Your task to perform on an android device: Open battery settings Image 0: 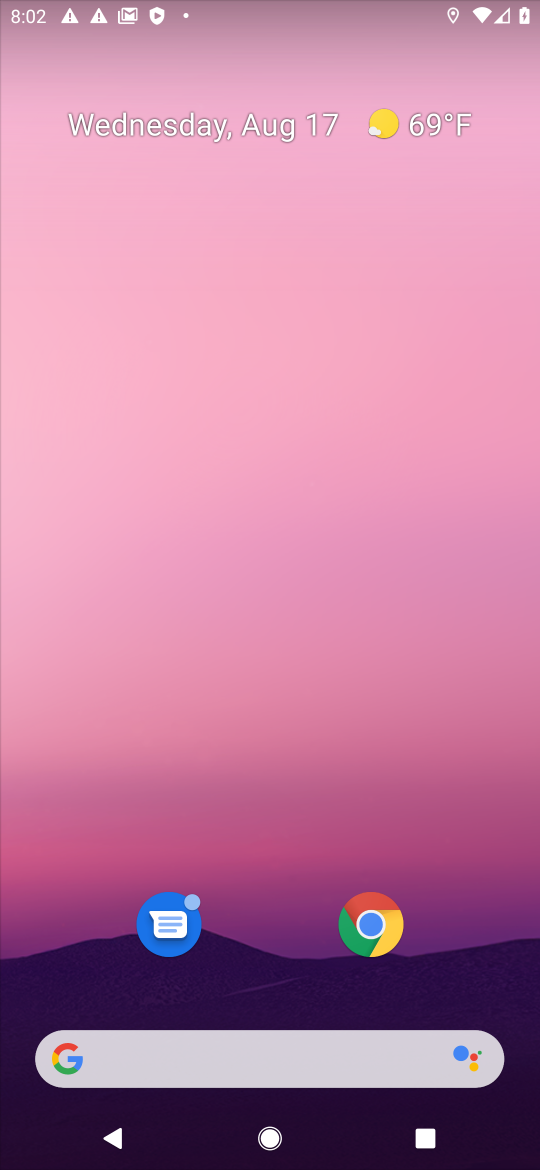
Step 0: drag from (275, 987) to (405, 65)
Your task to perform on an android device: Open battery settings Image 1: 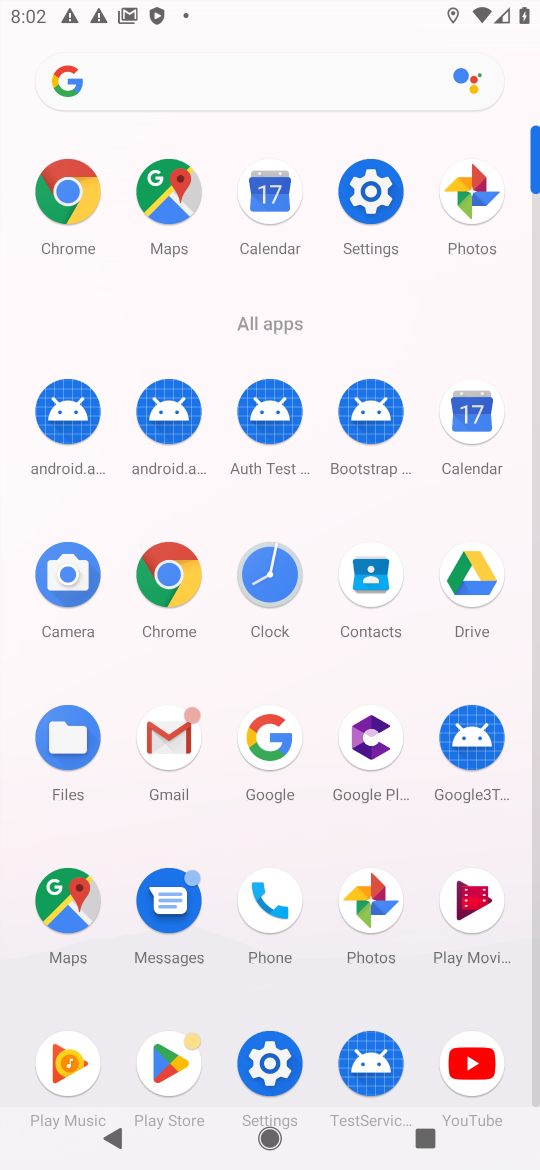
Step 1: click (263, 1073)
Your task to perform on an android device: Open battery settings Image 2: 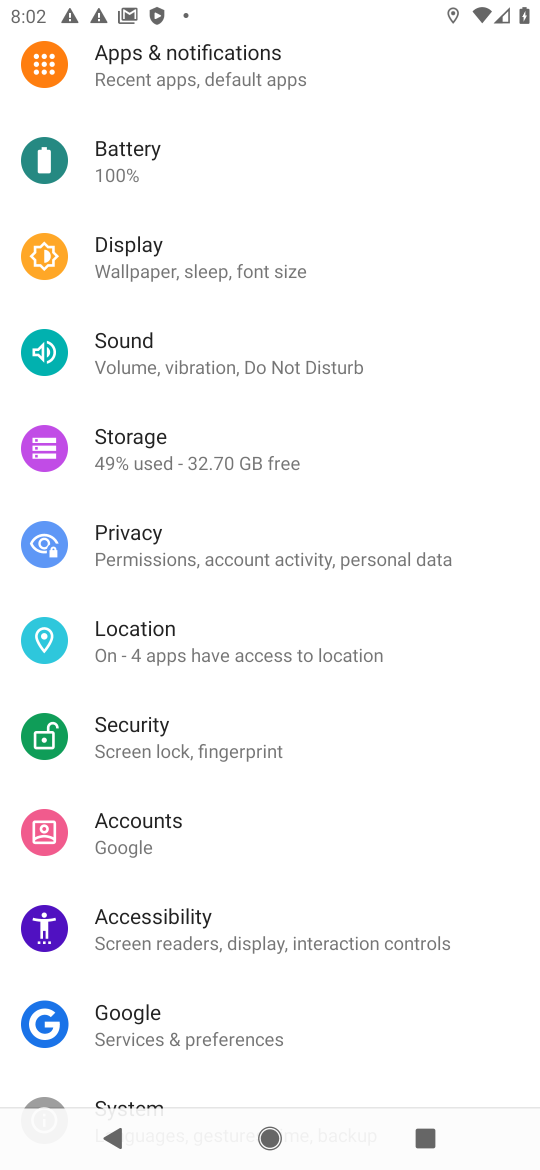
Step 2: drag from (288, 884) to (394, 283)
Your task to perform on an android device: Open battery settings Image 3: 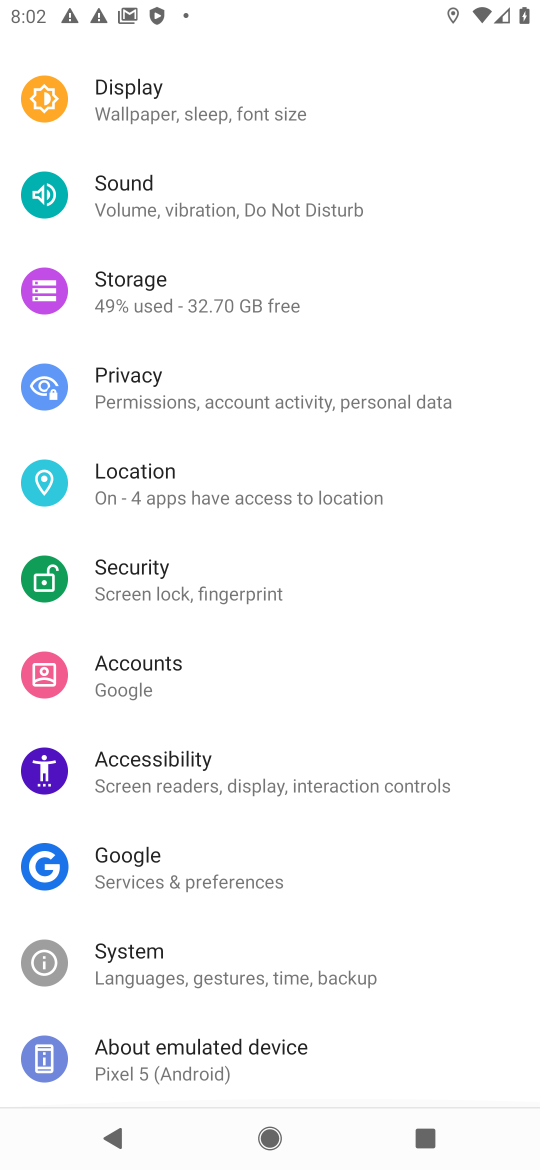
Step 3: drag from (317, 262) to (317, 854)
Your task to perform on an android device: Open battery settings Image 4: 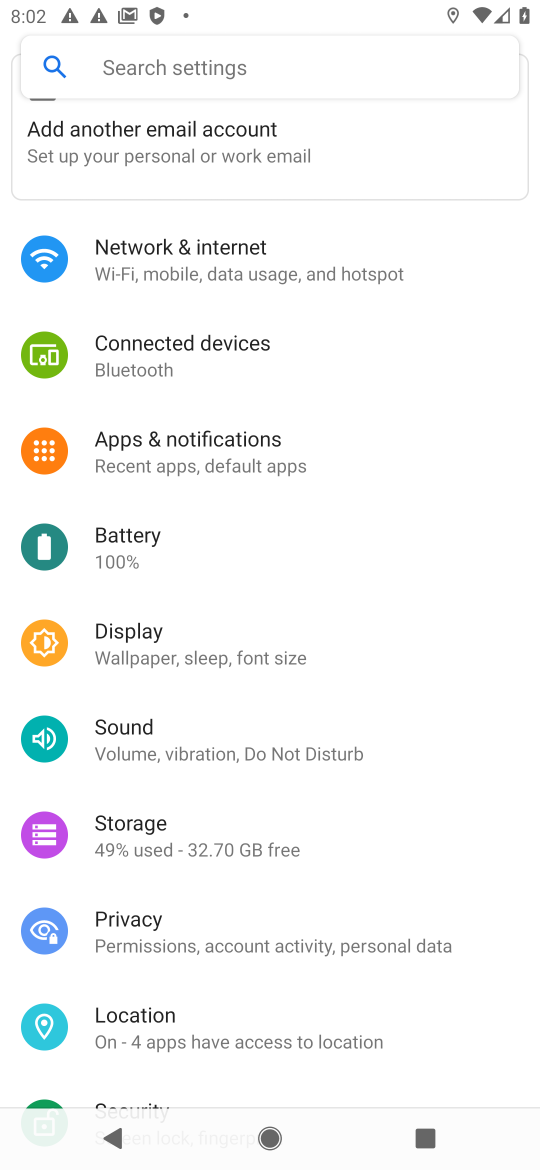
Step 4: click (112, 524)
Your task to perform on an android device: Open battery settings Image 5: 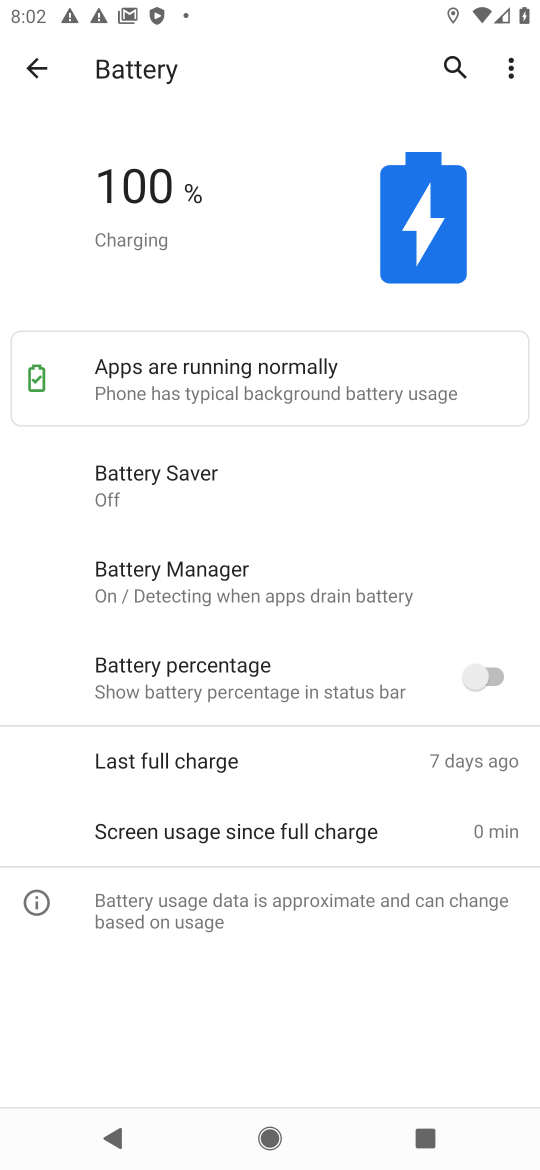
Step 5: task complete